Your task to perform on an android device: Is it going to rain tomorrow? Image 0: 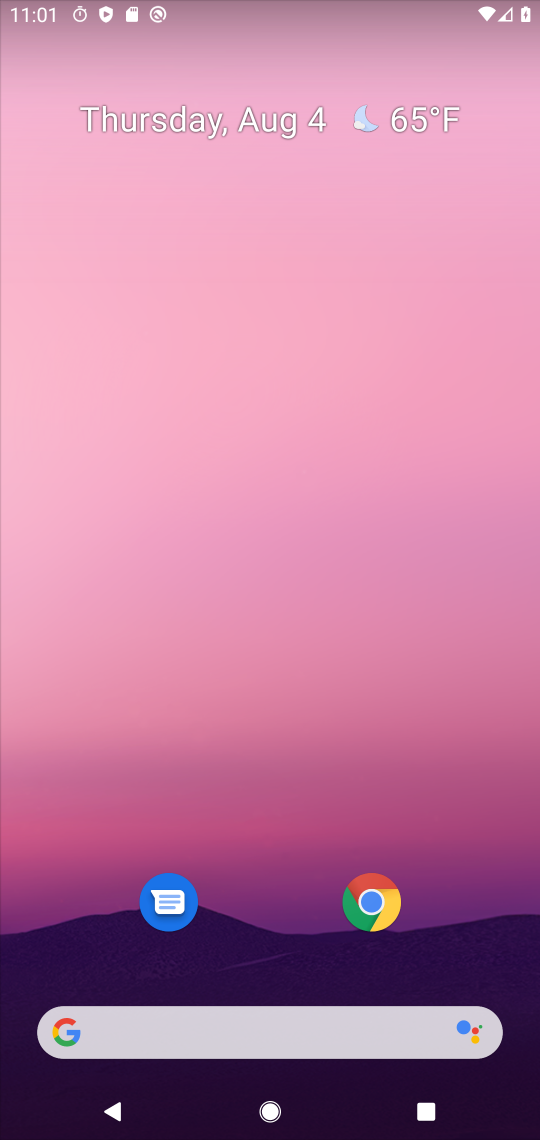
Step 0: press home button
Your task to perform on an android device: Is it going to rain tomorrow? Image 1: 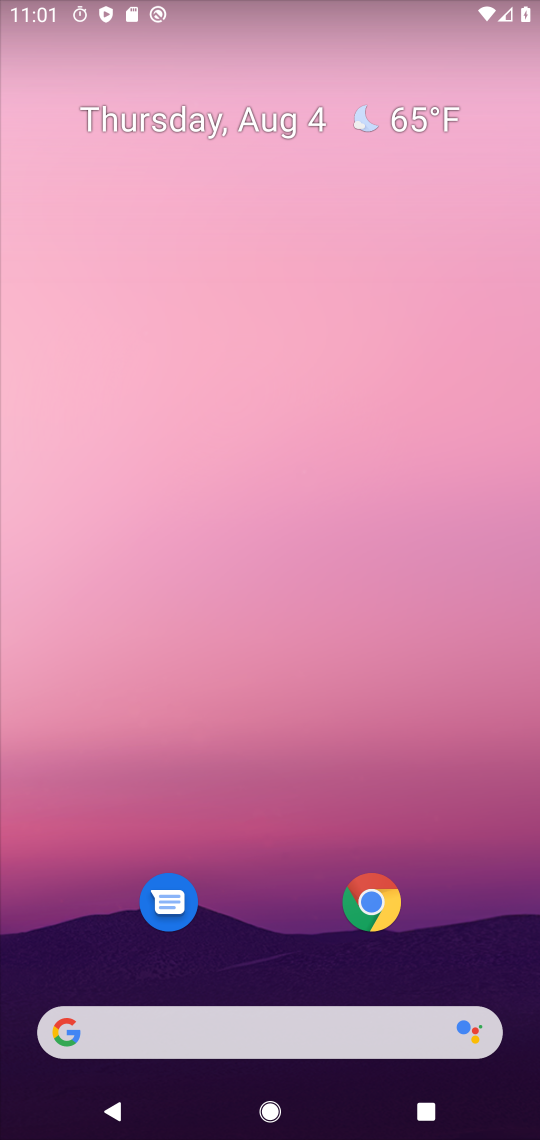
Step 1: click (306, 1039)
Your task to perform on an android device: Is it going to rain tomorrow? Image 2: 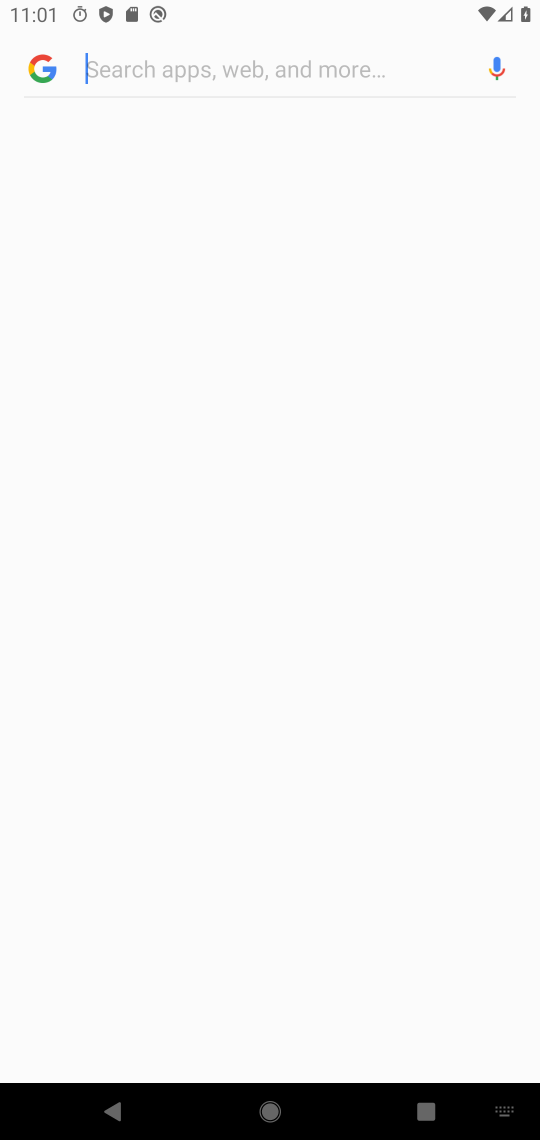
Step 2: click (502, 1116)
Your task to perform on an android device: Is it going to rain tomorrow? Image 3: 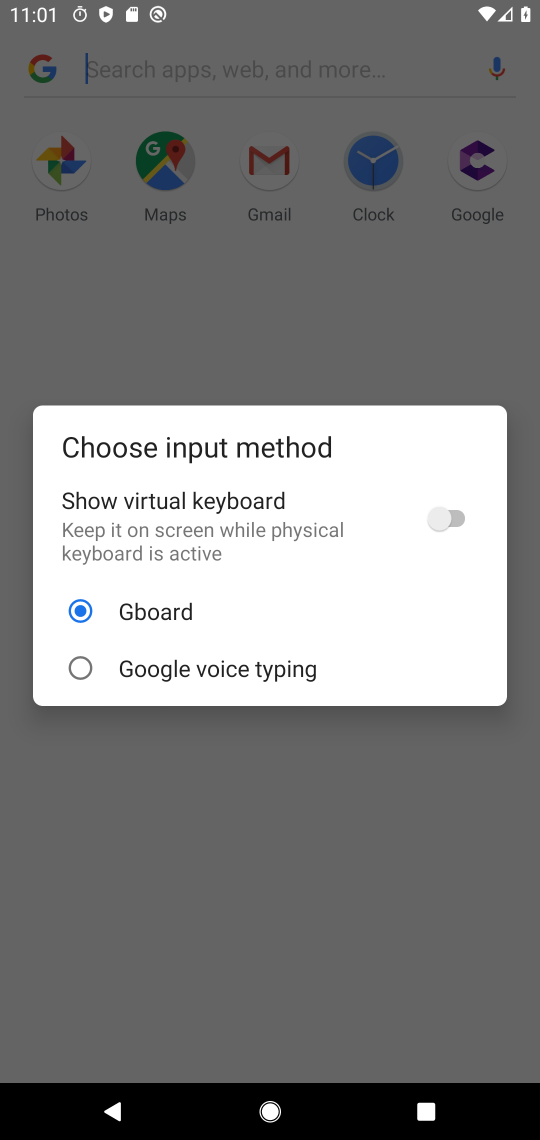
Step 3: click (443, 535)
Your task to perform on an android device: Is it going to rain tomorrow? Image 4: 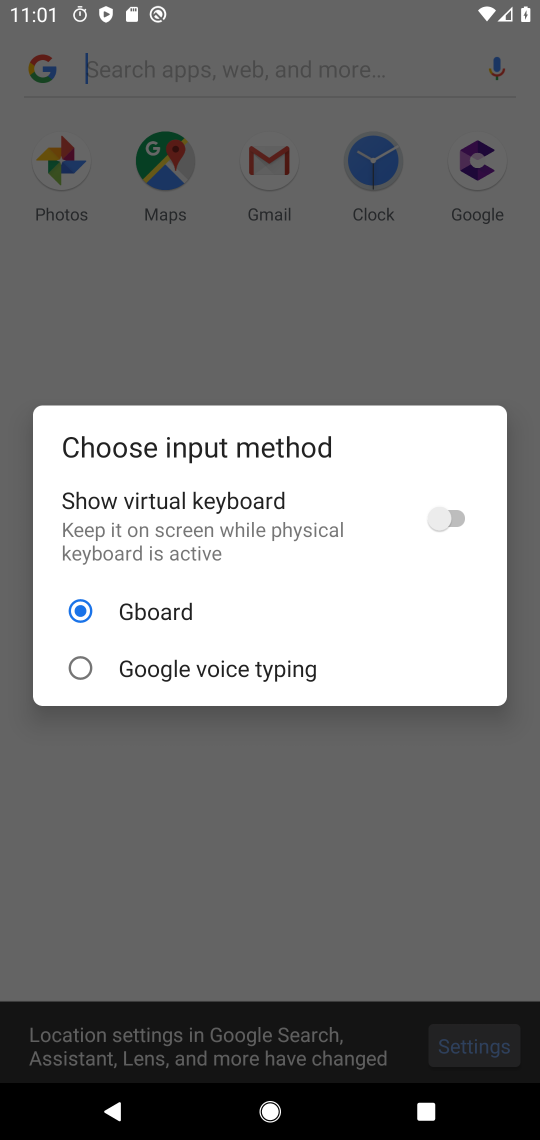
Step 4: click (449, 521)
Your task to perform on an android device: Is it going to rain tomorrow? Image 5: 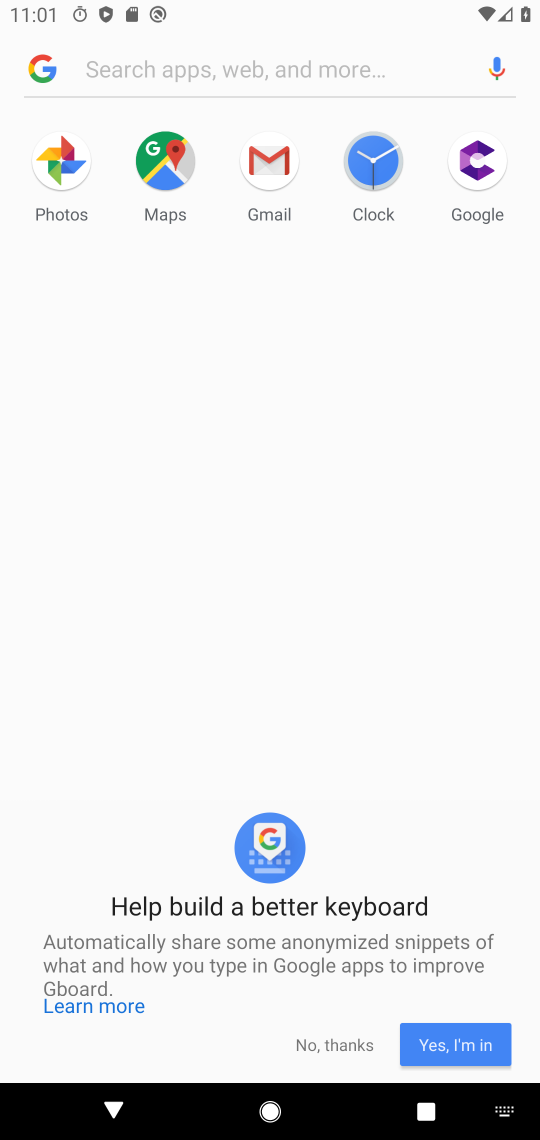
Step 5: click (321, 1033)
Your task to perform on an android device: Is it going to rain tomorrow? Image 6: 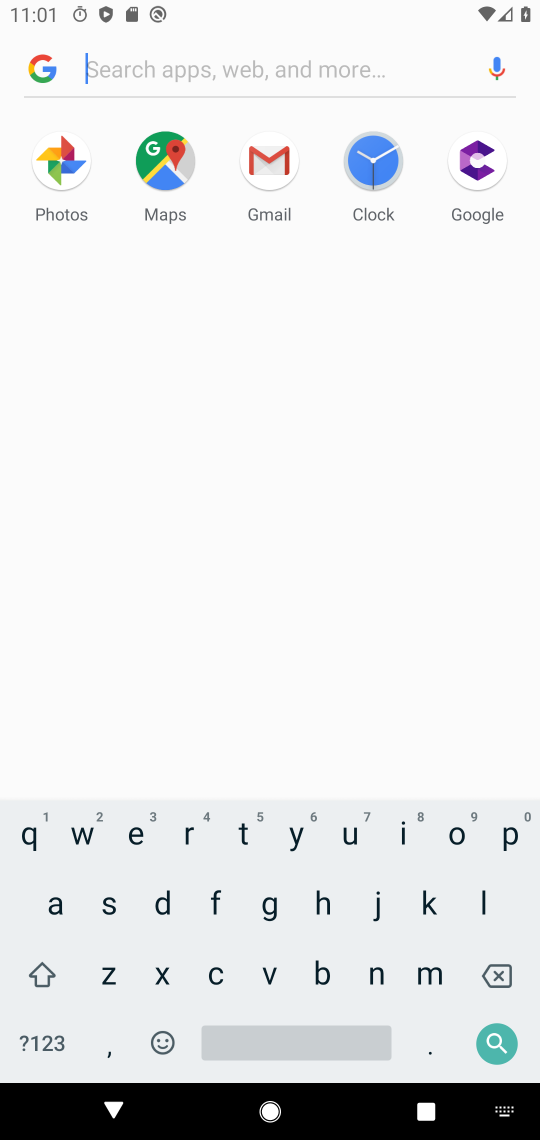
Step 6: click (398, 835)
Your task to perform on an android device: Is it going to rain tomorrow? Image 7: 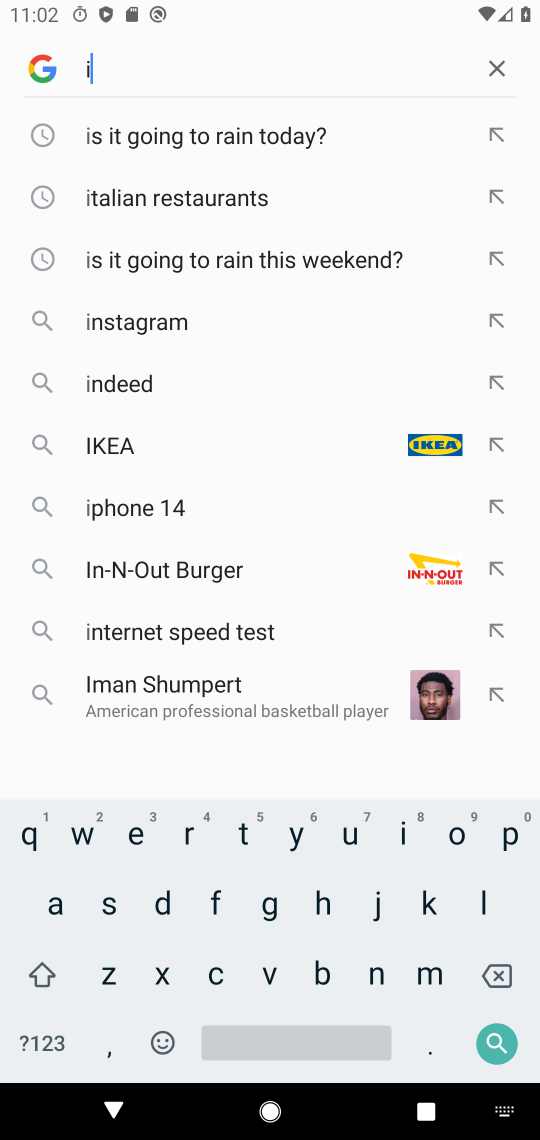
Step 7: click (118, 898)
Your task to perform on an android device: Is it going to rain tomorrow? Image 8: 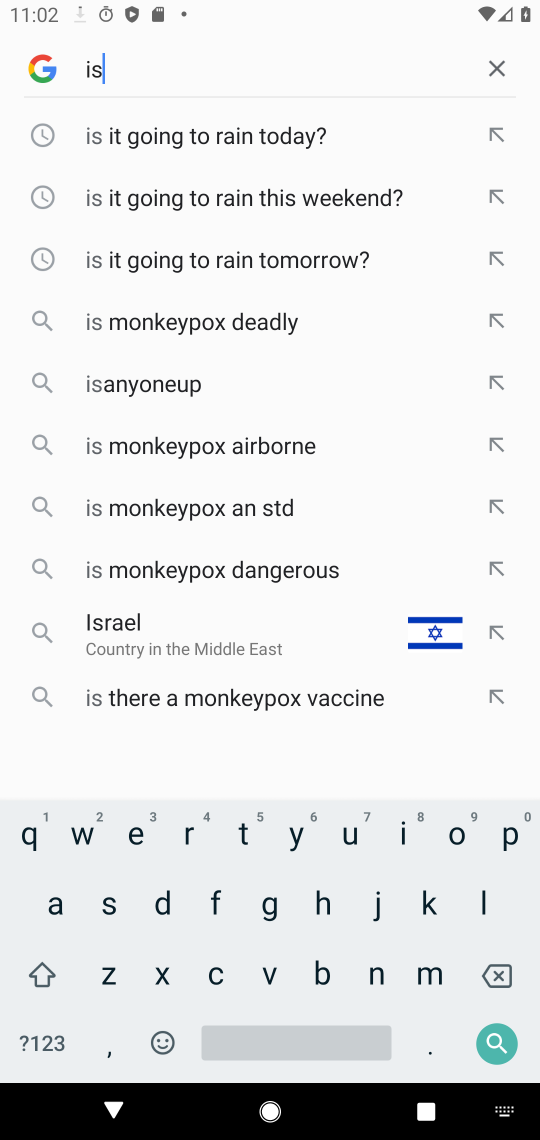
Step 8: click (226, 257)
Your task to perform on an android device: Is it going to rain tomorrow? Image 9: 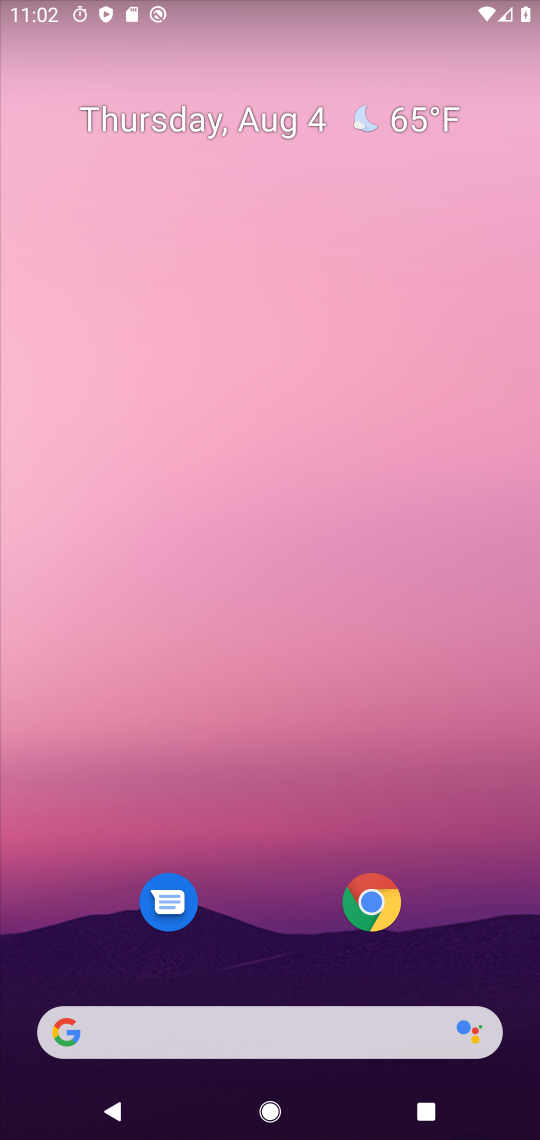
Step 9: click (318, 1017)
Your task to perform on an android device: Is it going to rain tomorrow? Image 10: 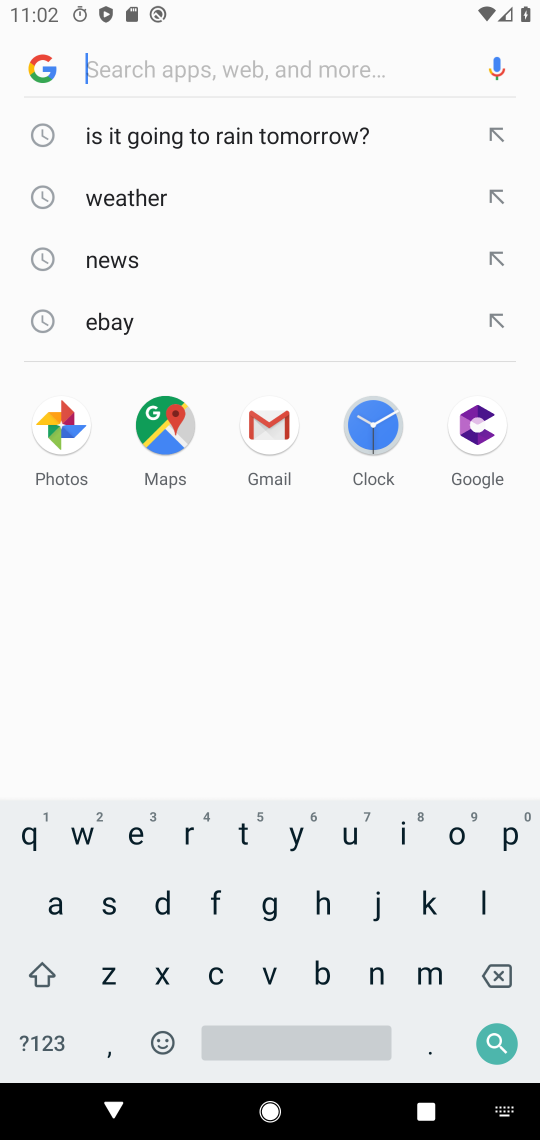
Step 10: click (231, 146)
Your task to perform on an android device: Is it going to rain tomorrow? Image 11: 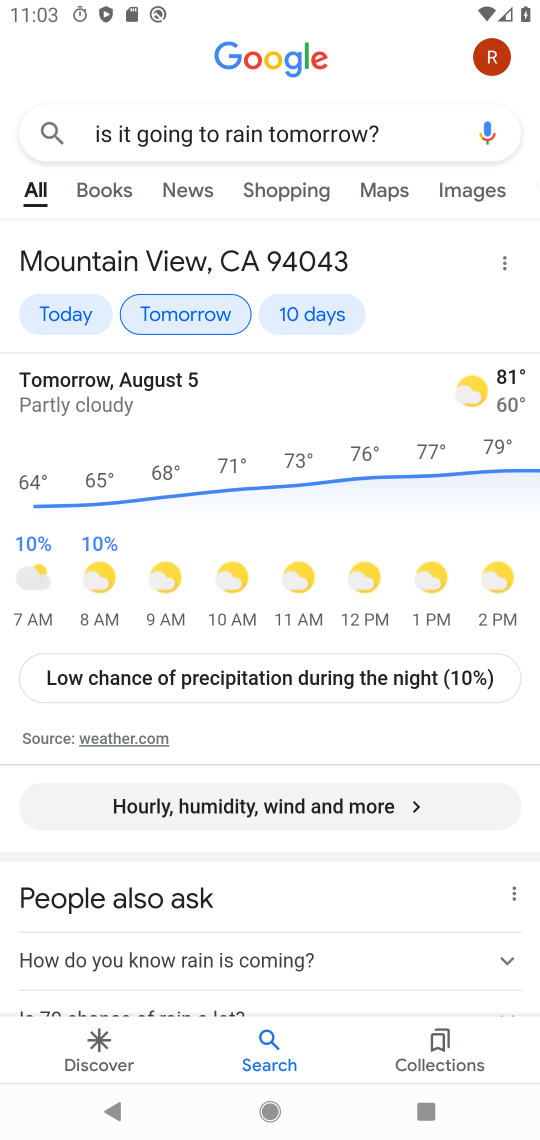
Step 11: task complete